Your task to perform on an android device: Open the map Image 0: 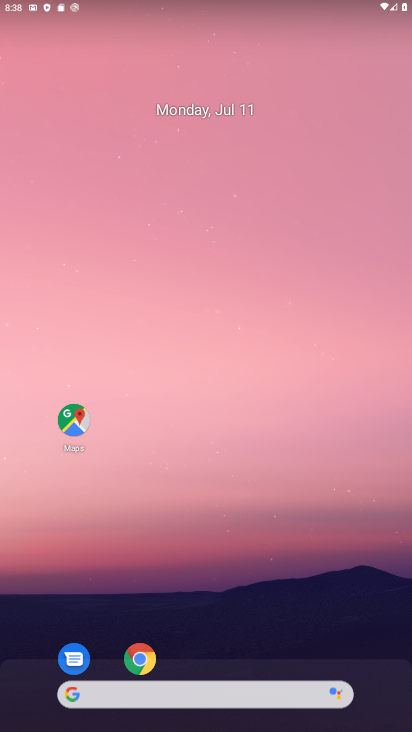
Step 0: click (85, 431)
Your task to perform on an android device: Open the map Image 1: 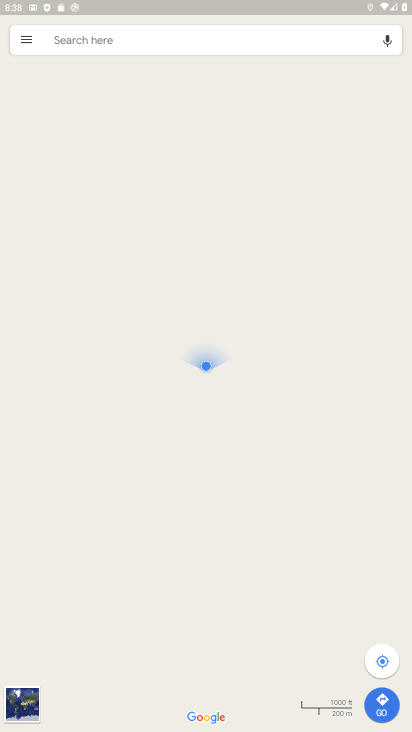
Step 1: task complete